Your task to perform on an android device: Add "dell alienware" to the cart on target, then select checkout. Image 0: 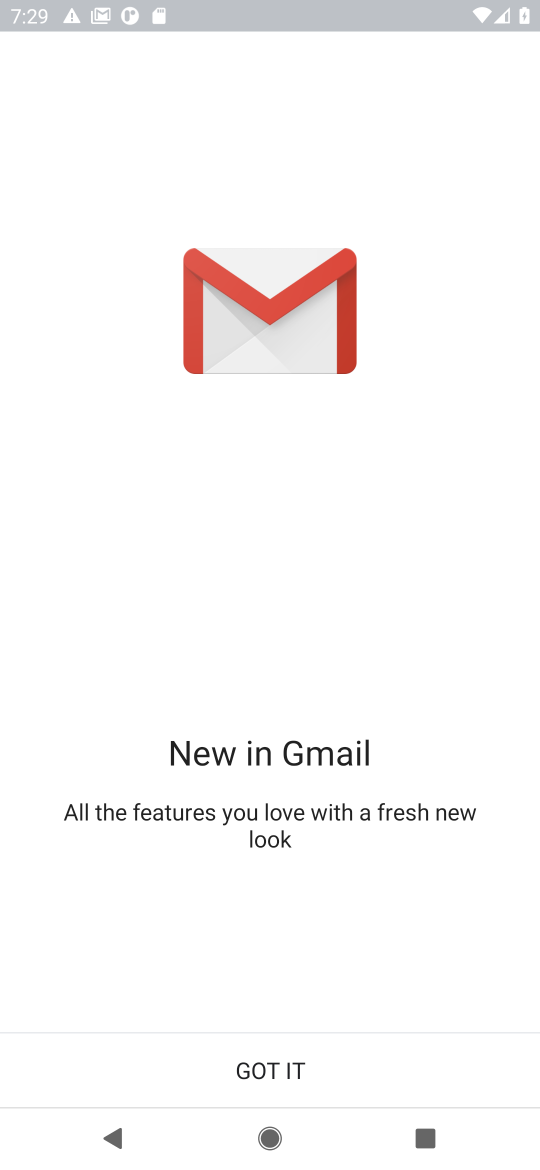
Step 0: press home button
Your task to perform on an android device: Add "dell alienware" to the cart on target, then select checkout. Image 1: 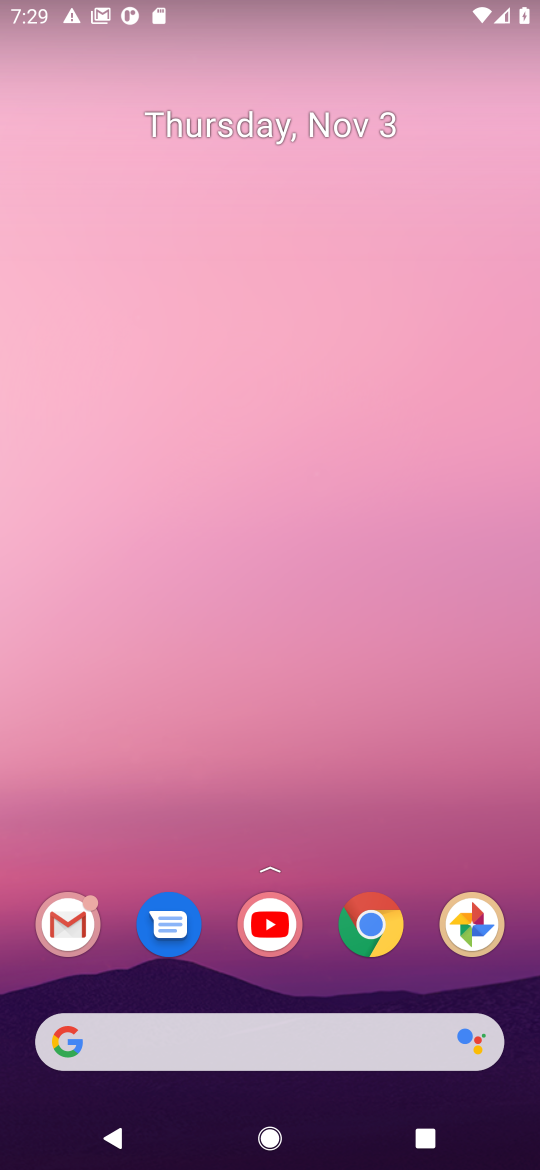
Step 1: click (241, 1043)
Your task to perform on an android device: Add "dell alienware" to the cart on target, then select checkout. Image 2: 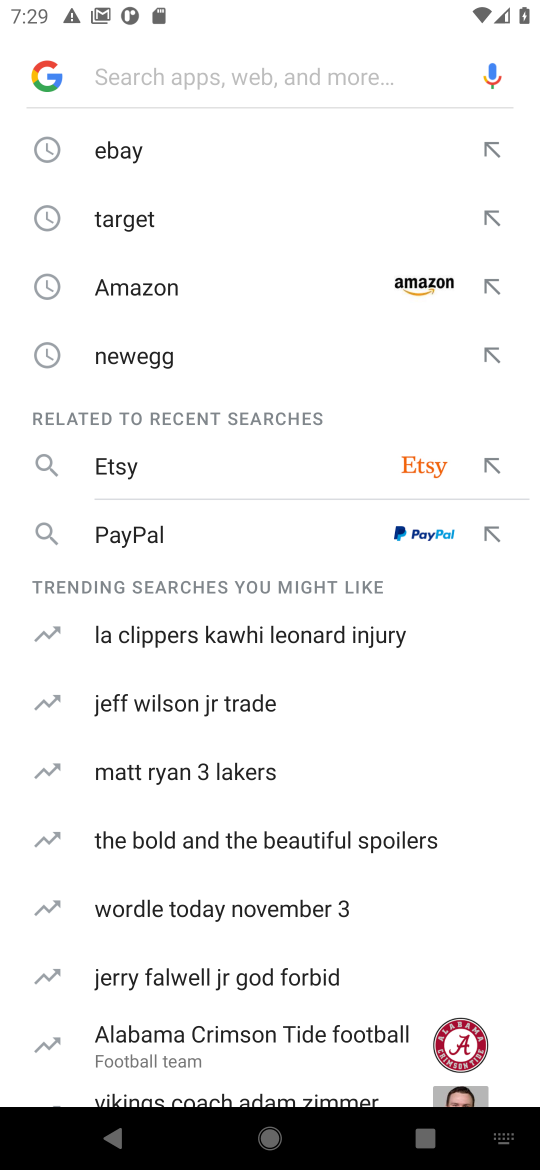
Step 2: click (129, 226)
Your task to perform on an android device: Add "dell alienware" to the cart on target, then select checkout. Image 3: 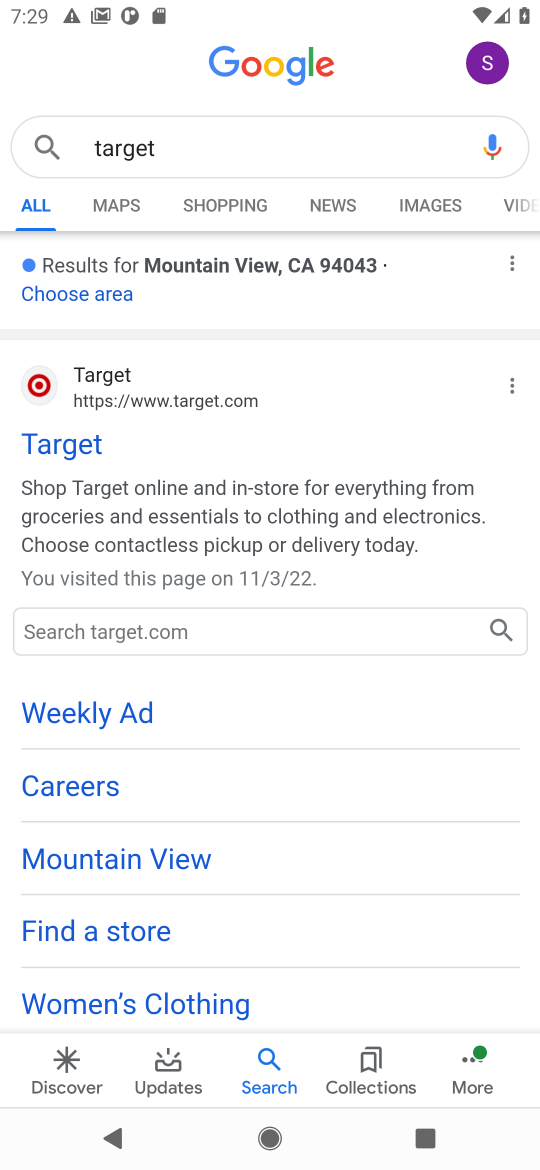
Step 3: click (96, 377)
Your task to perform on an android device: Add "dell alienware" to the cart on target, then select checkout. Image 4: 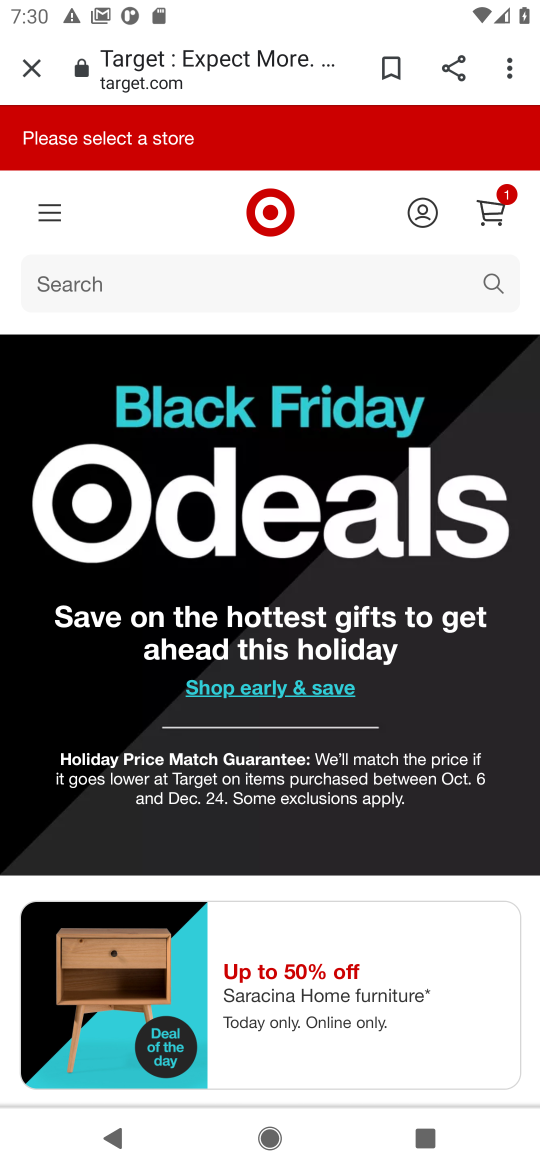
Step 4: click (163, 281)
Your task to perform on an android device: Add "dell alienware" to the cart on target, then select checkout. Image 5: 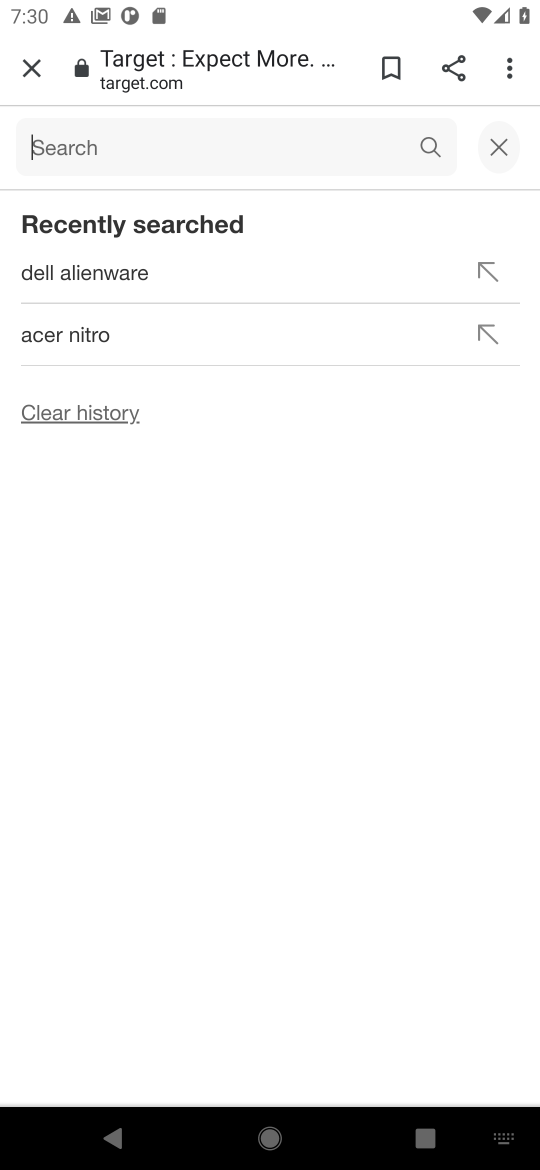
Step 5: click (134, 268)
Your task to perform on an android device: Add "dell alienware" to the cart on target, then select checkout. Image 6: 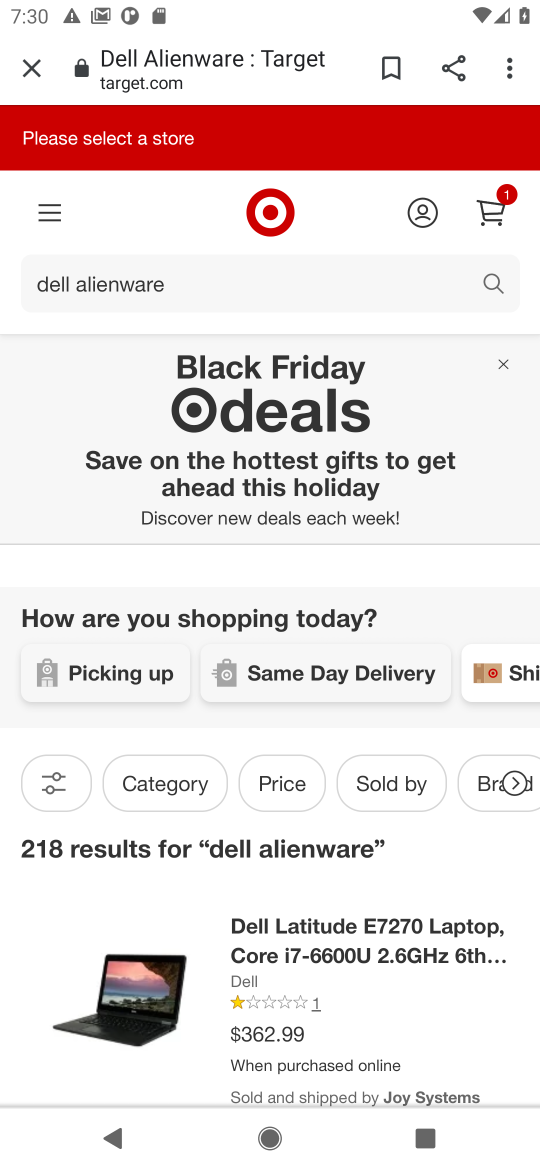
Step 6: drag from (408, 853) to (357, 538)
Your task to perform on an android device: Add "dell alienware" to the cart on target, then select checkout. Image 7: 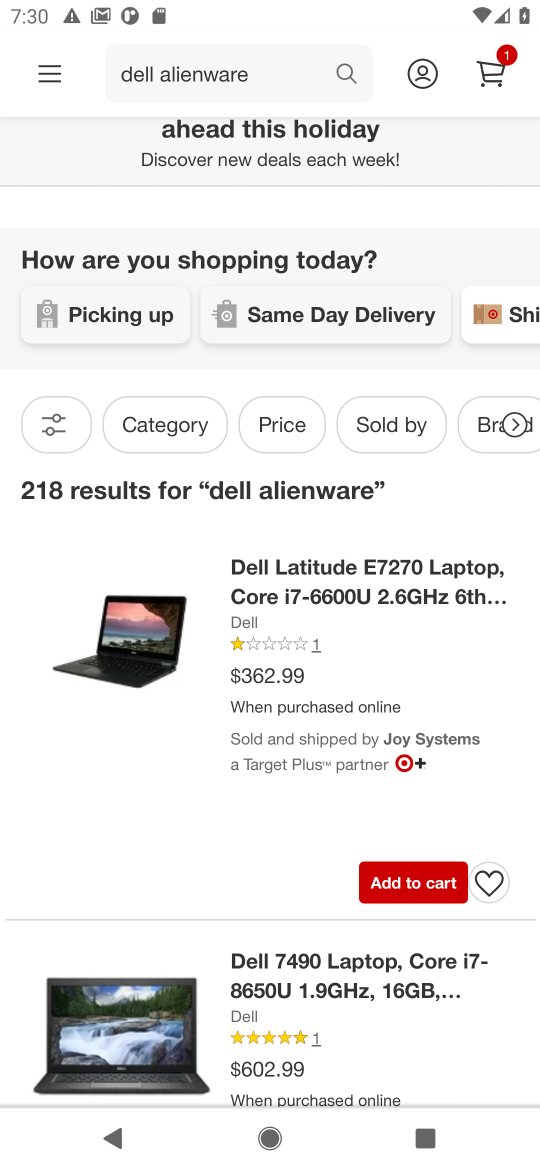
Step 7: click (417, 884)
Your task to perform on an android device: Add "dell alienware" to the cart on target, then select checkout. Image 8: 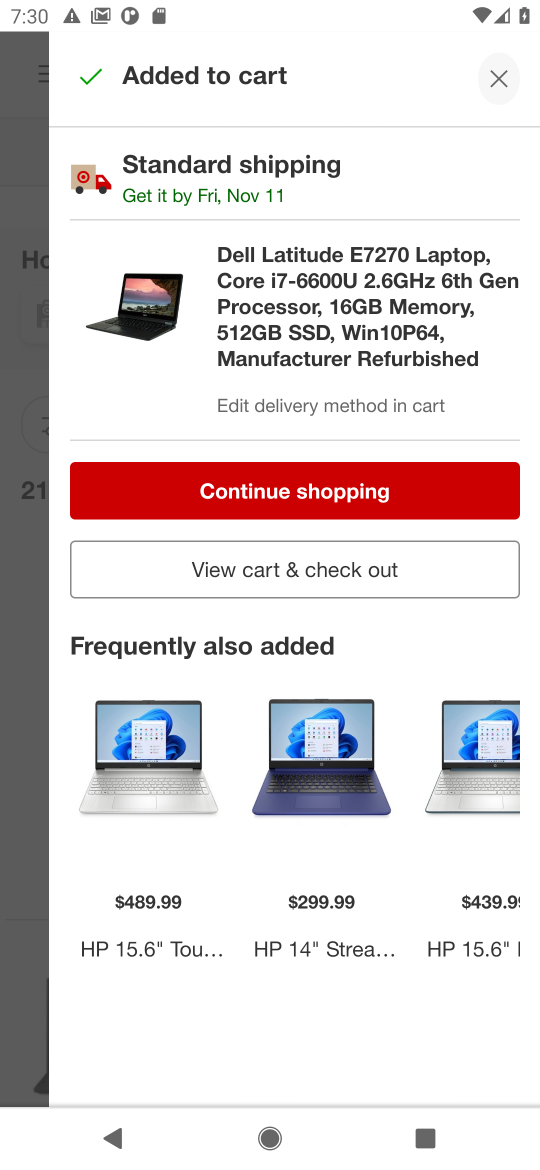
Step 8: click (290, 570)
Your task to perform on an android device: Add "dell alienware" to the cart on target, then select checkout. Image 9: 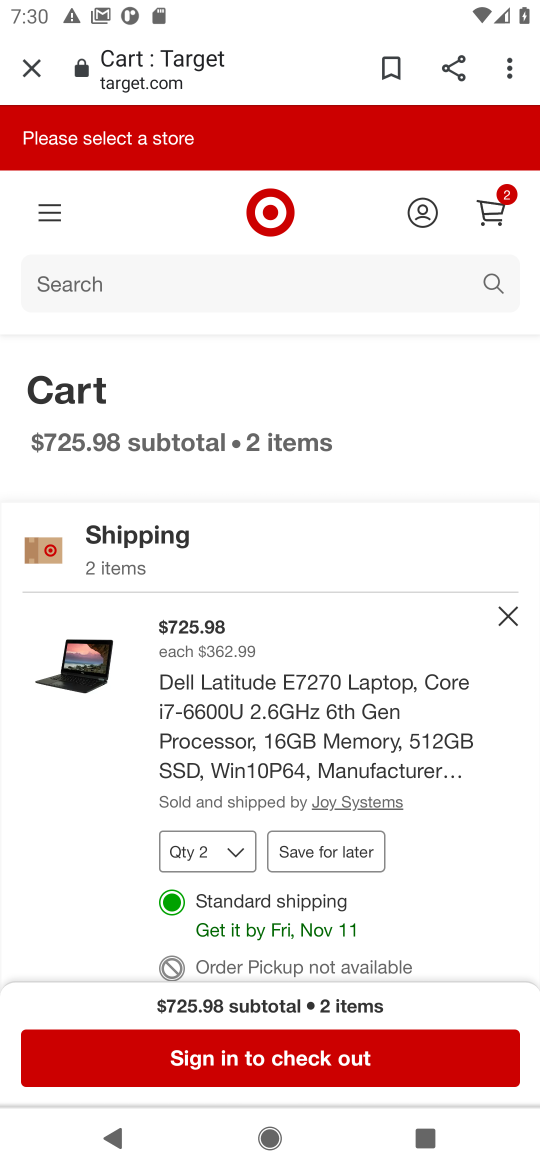
Step 9: click (306, 1054)
Your task to perform on an android device: Add "dell alienware" to the cart on target, then select checkout. Image 10: 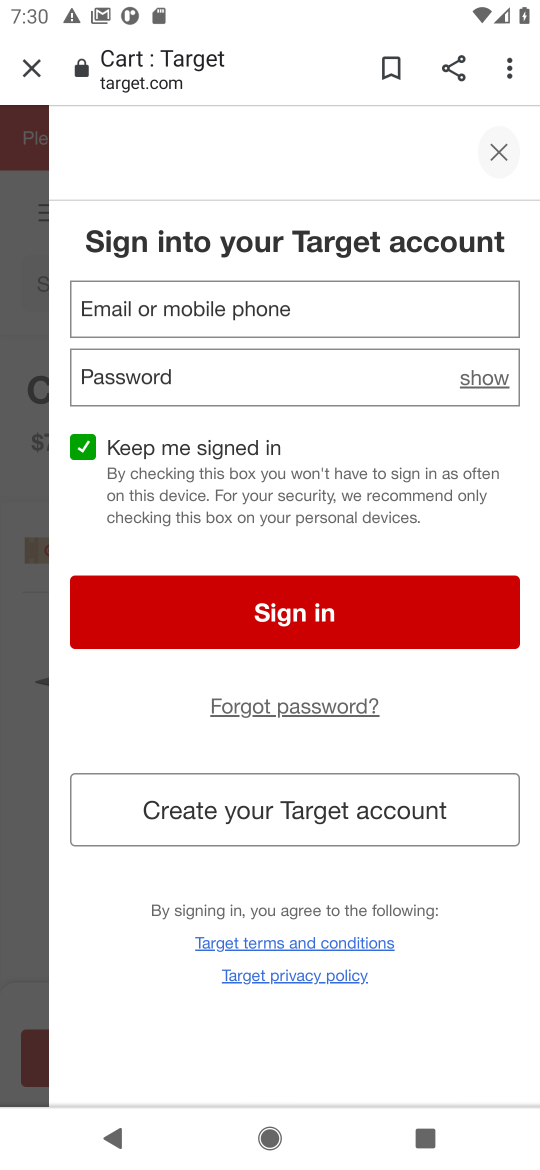
Step 10: task complete